Your task to perform on an android device: Open Maps and search for coffee Image 0: 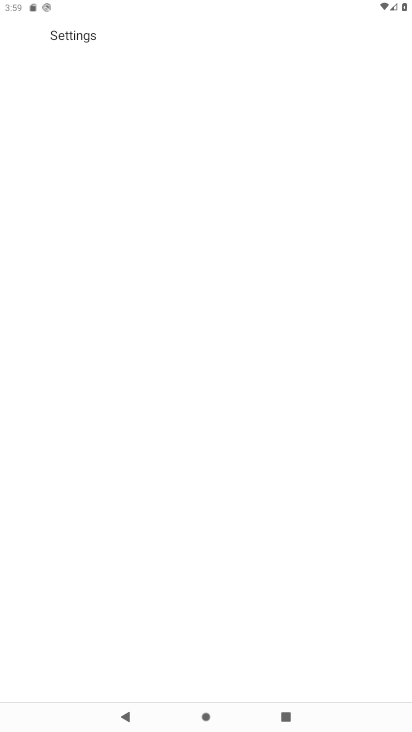
Step 0: click (408, 512)
Your task to perform on an android device: Open Maps and search for coffee Image 1: 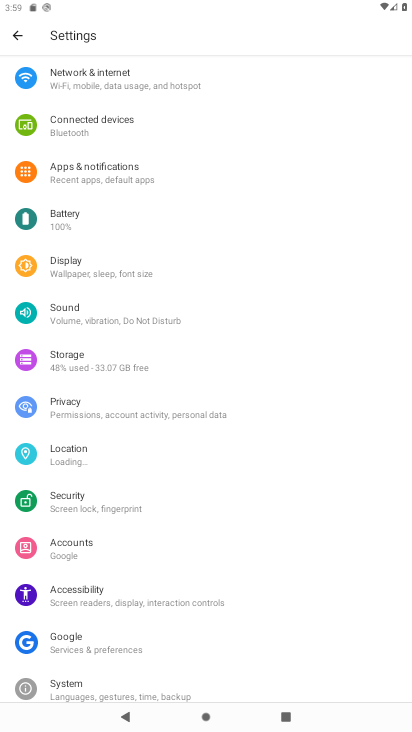
Step 1: press home button
Your task to perform on an android device: Open Maps and search for coffee Image 2: 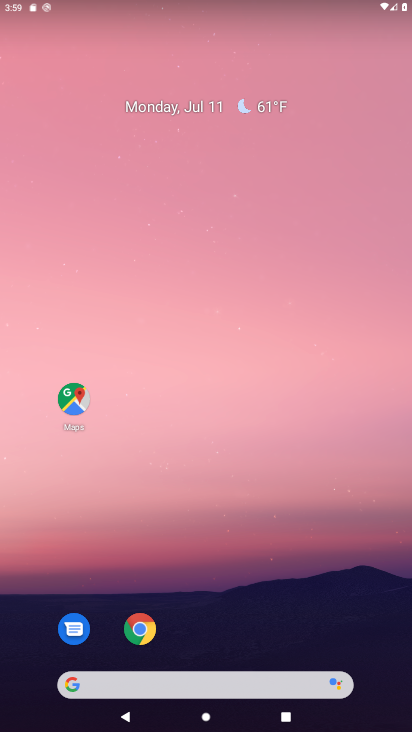
Step 2: click (65, 415)
Your task to perform on an android device: Open Maps and search for coffee Image 3: 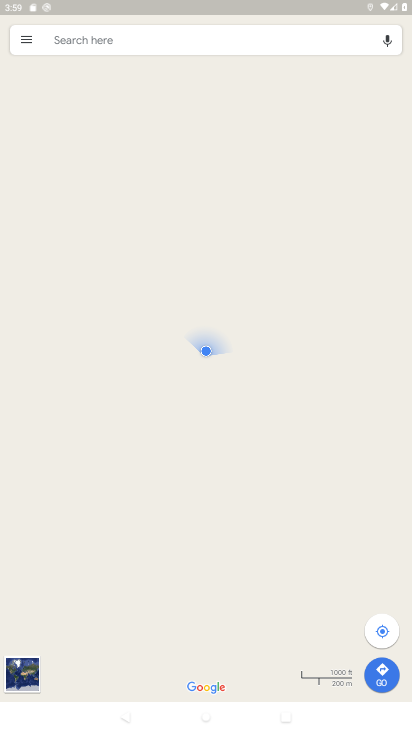
Step 3: click (73, 44)
Your task to perform on an android device: Open Maps and search for coffee Image 4: 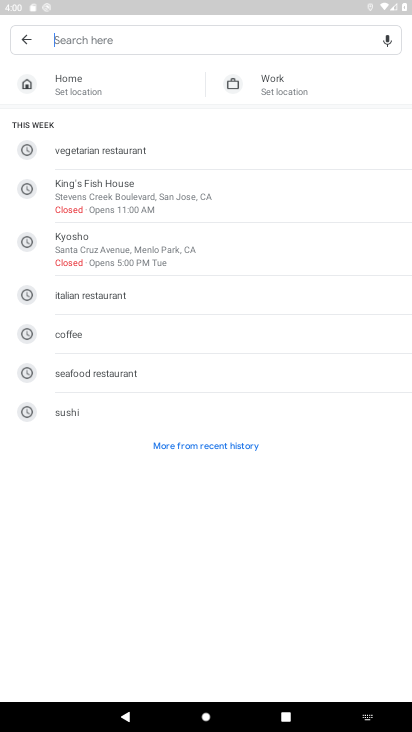
Step 4: click (151, 334)
Your task to perform on an android device: Open Maps and search for coffee Image 5: 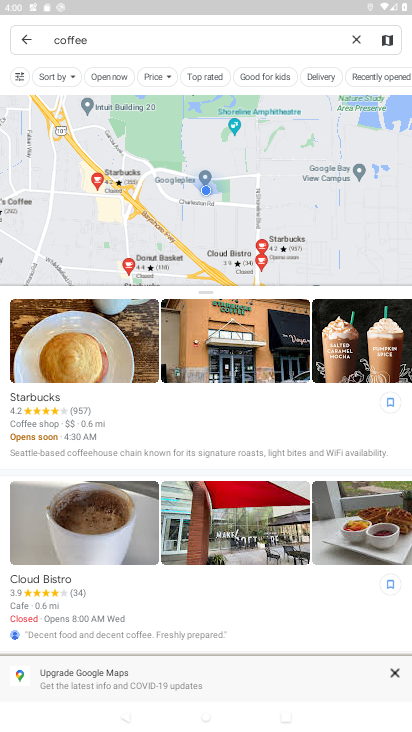
Step 5: task complete